Your task to perform on an android device: Open Google Chrome and click the shortcut for Amazon.com Image 0: 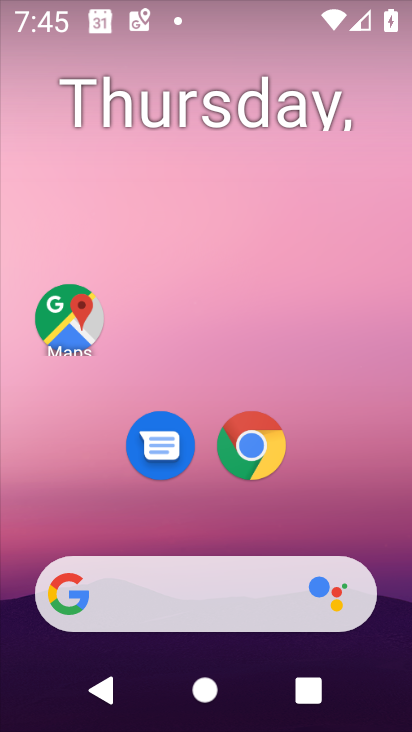
Step 0: drag from (407, 646) to (299, 41)
Your task to perform on an android device: Open Google Chrome and click the shortcut for Amazon.com Image 1: 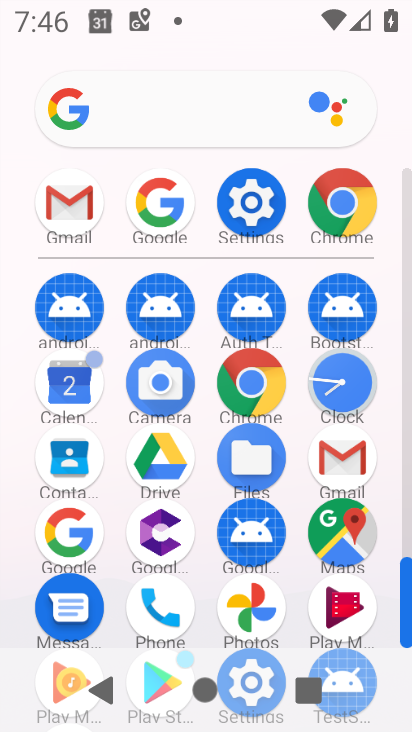
Step 1: click (248, 399)
Your task to perform on an android device: Open Google Chrome and click the shortcut for Amazon.com Image 2: 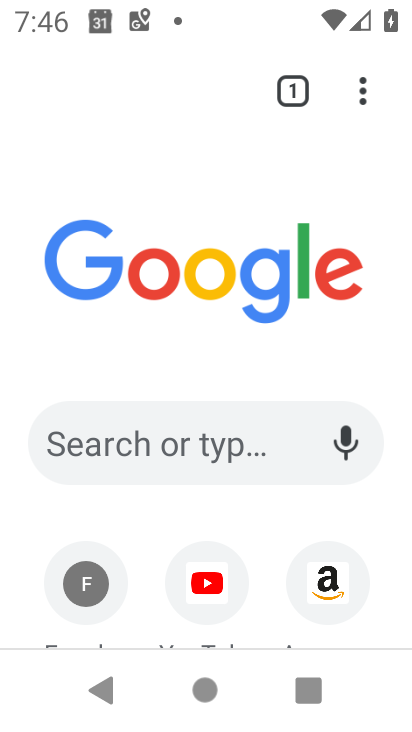
Step 2: click (330, 569)
Your task to perform on an android device: Open Google Chrome and click the shortcut for Amazon.com Image 3: 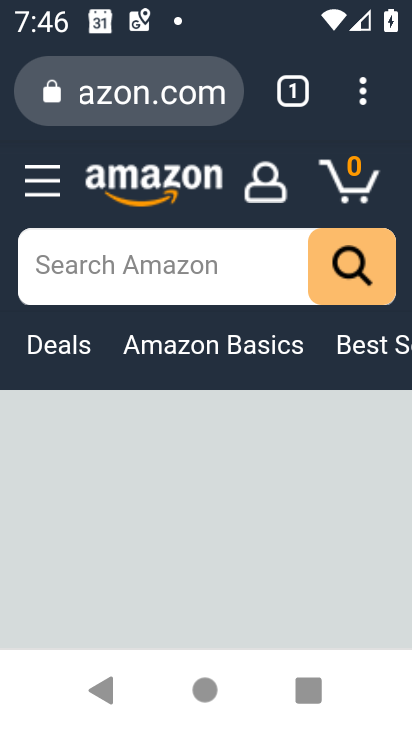
Step 3: task complete